Your task to perform on an android device: add a contact Image 0: 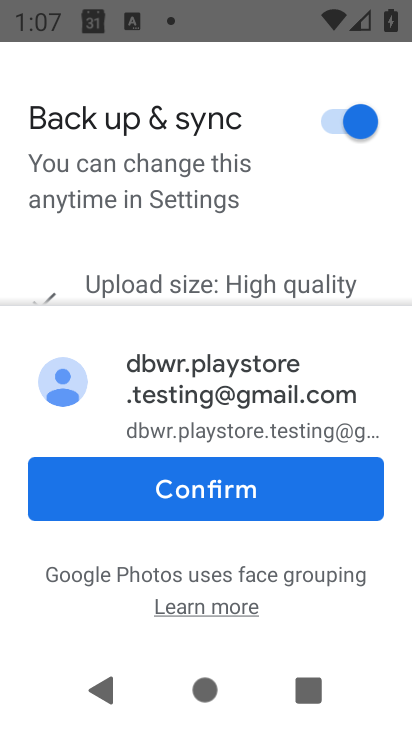
Step 0: press home button
Your task to perform on an android device: add a contact Image 1: 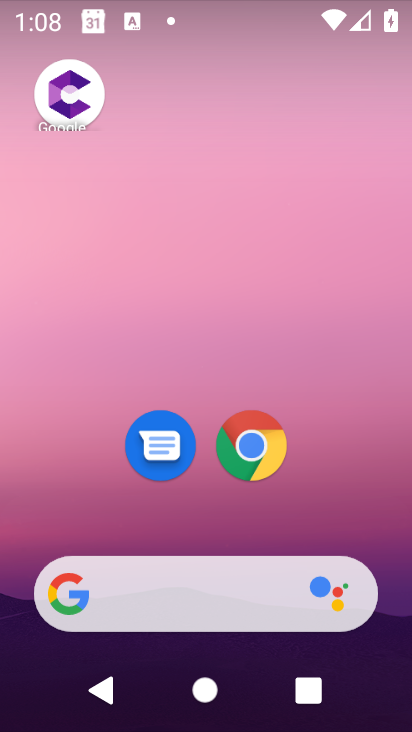
Step 1: drag from (179, 529) to (154, 51)
Your task to perform on an android device: add a contact Image 2: 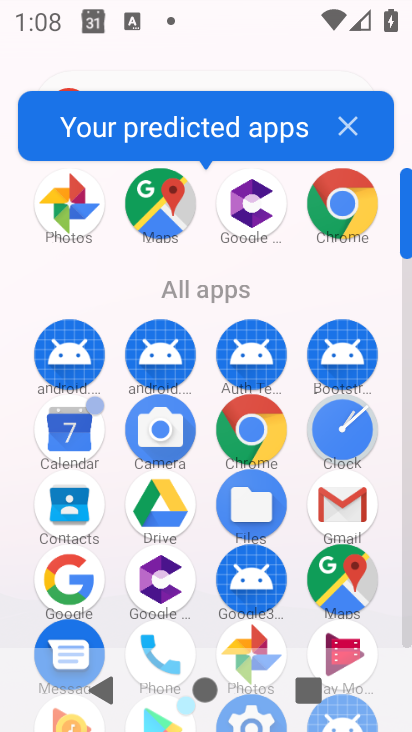
Step 2: drag from (121, 588) to (124, 100)
Your task to perform on an android device: add a contact Image 3: 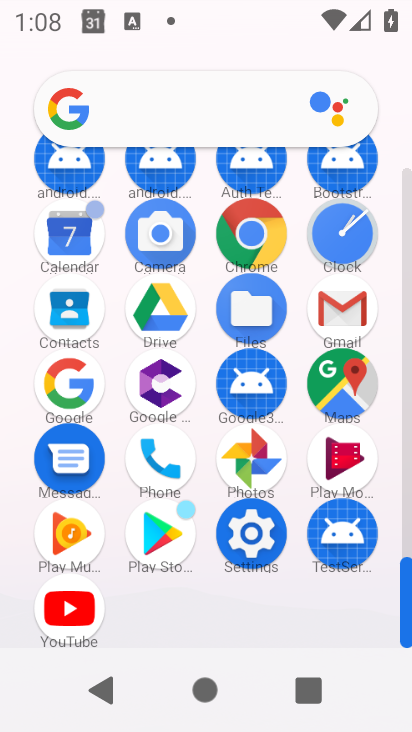
Step 3: click (65, 325)
Your task to perform on an android device: add a contact Image 4: 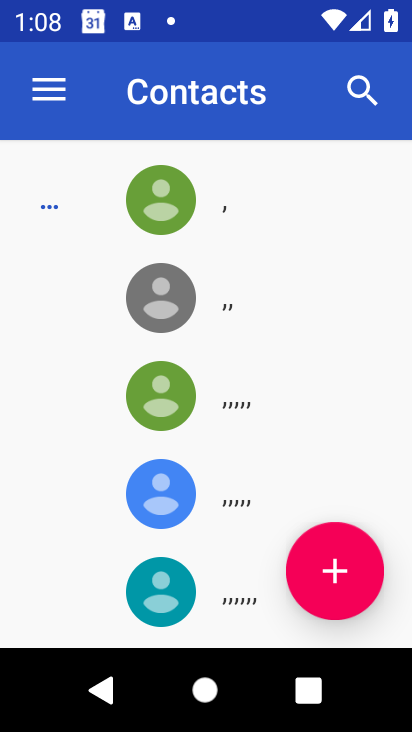
Step 4: click (342, 551)
Your task to perform on an android device: add a contact Image 5: 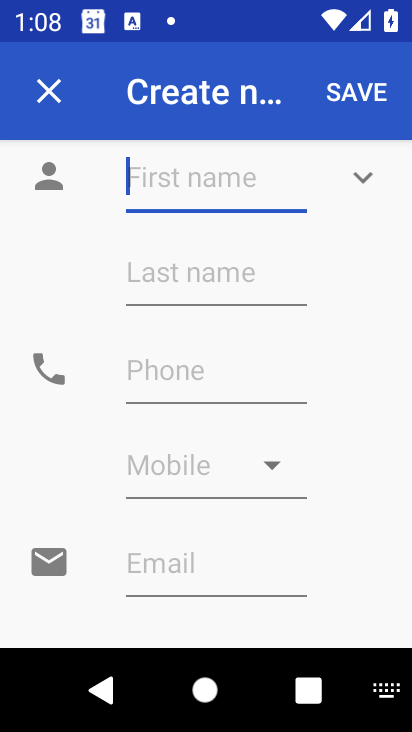
Step 5: type "ujm "
Your task to perform on an android device: add a contact Image 6: 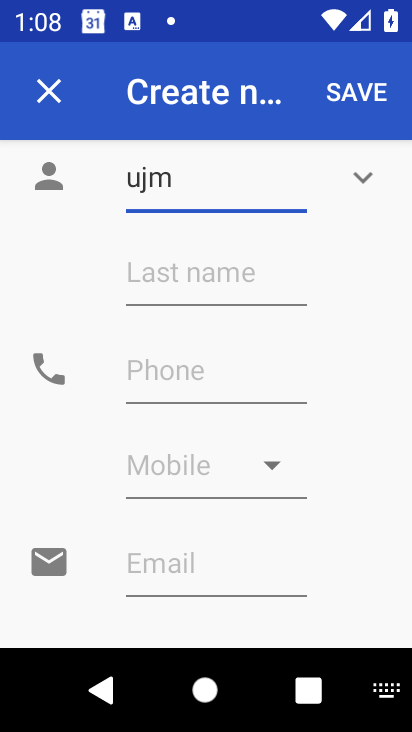
Step 6: click (144, 350)
Your task to perform on an android device: add a contact Image 7: 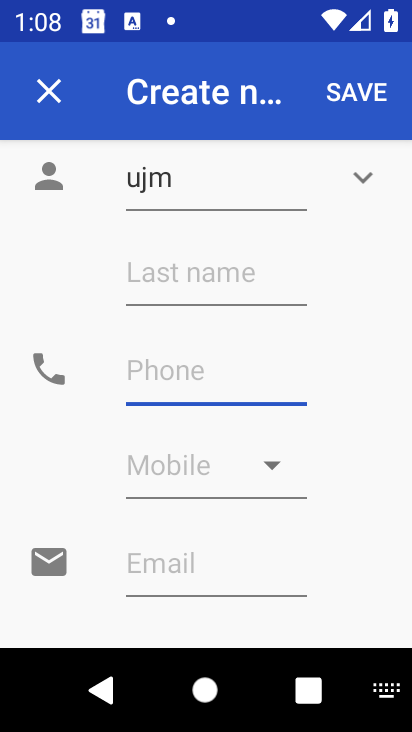
Step 7: type "09876543"
Your task to perform on an android device: add a contact Image 8: 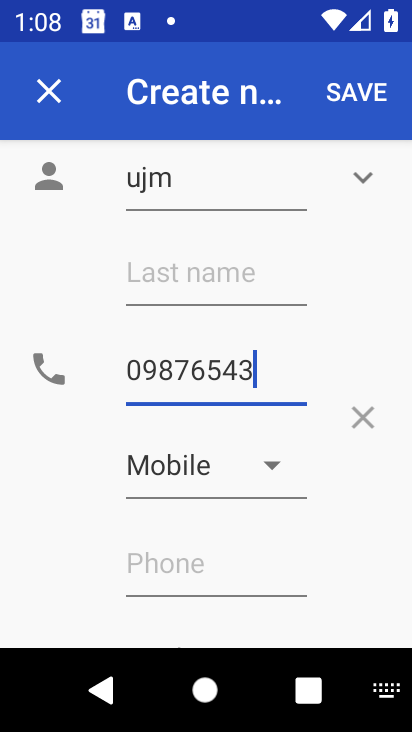
Step 8: click (356, 100)
Your task to perform on an android device: add a contact Image 9: 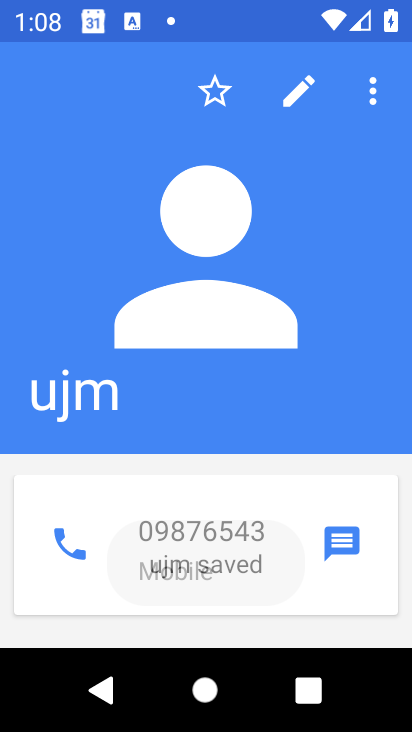
Step 9: task complete